Your task to perform on an android device: Is it going to rain today? Image 0: 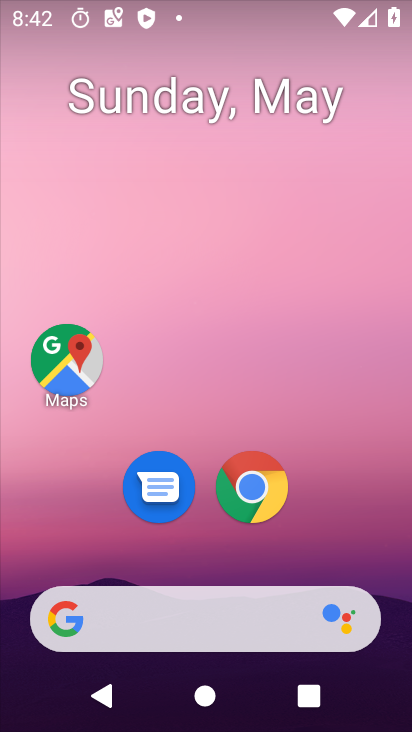
Step 0: press home button
Your task to perform on an android device: Is it going to rain today? Image 1: 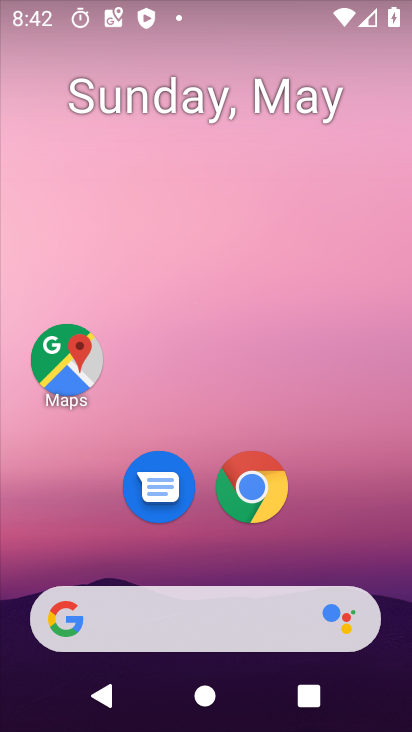
Step 1: click (198, 606)
Your task to perform on an android device: Is it going to rain today? Image 2: 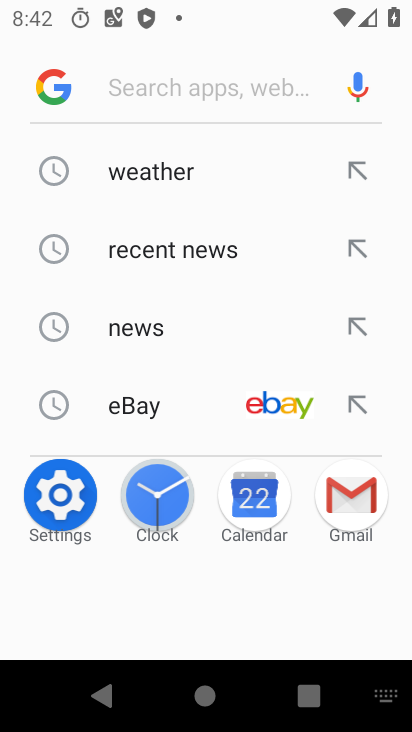
Step 2: click (205, 190)
Your task to perform on an android device: Is it going to rain today? Image 3: 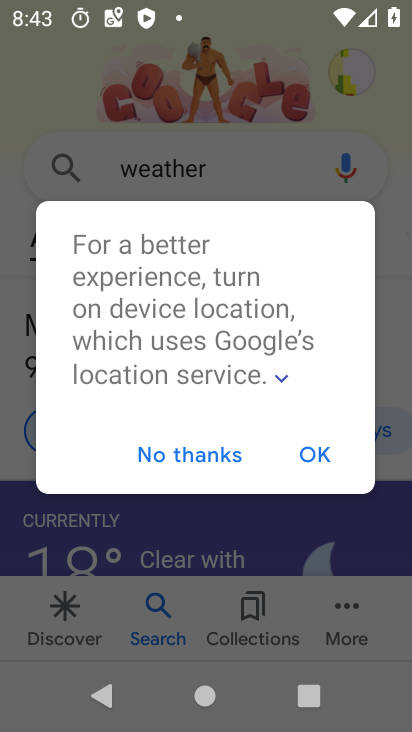
Step 3: task complete